Your task to perform on an android device: see tabs open on other devices in the chrome app Image 0: 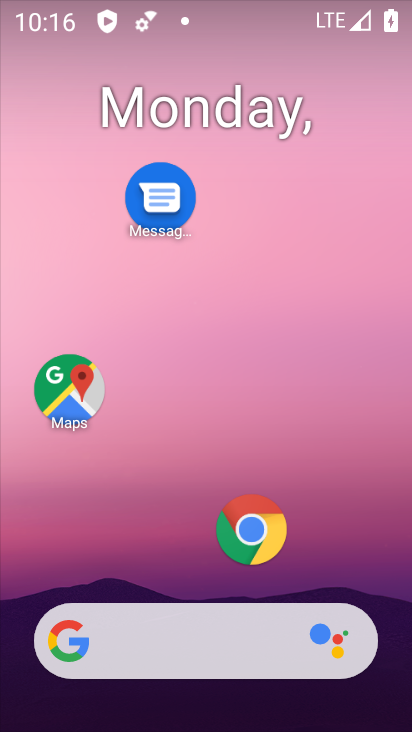
Step 0: drag from (154, 555) to (215, 125)
Your task to perform on an android device: see tabs open on other devices in the chrome app Image 1: 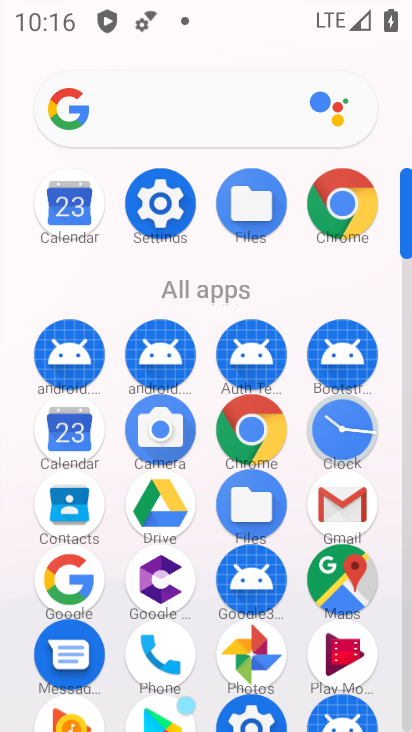
Step 1: click (267, 440)
Your task to perform on an android device: see tabs open on other devices in the chrome app Image 2: 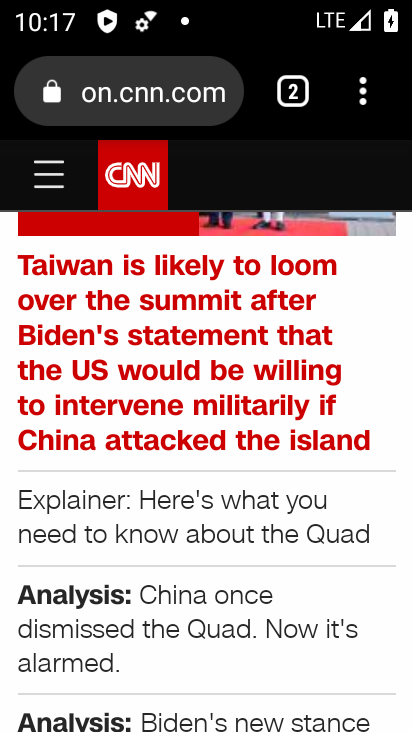
Step 2: click (367, 84)
Your task to perform on an android device: see tabs open on other devices in the chrome app Image 3: 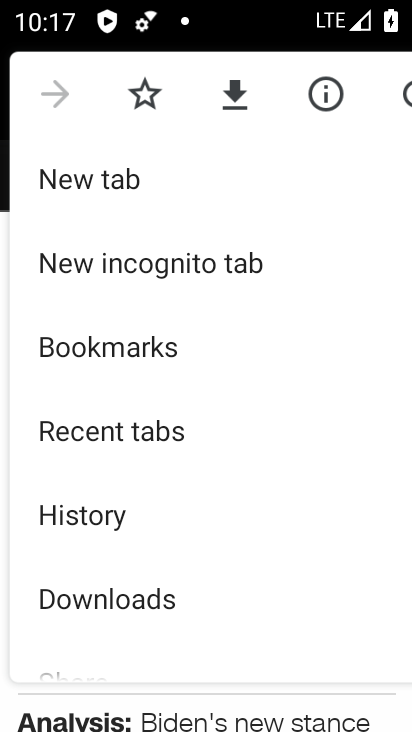
Step 3: click (158, 435)
Your task to perform on an android device: see tabs open on other devices in the chrome app Image 4: 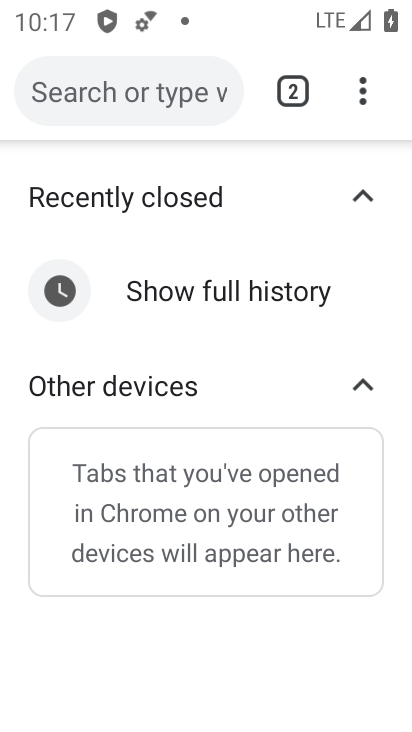
Step 4: click (259, 398)
Your task to perform on an android device: see tabs open on other devices in the chrome app Image 5: 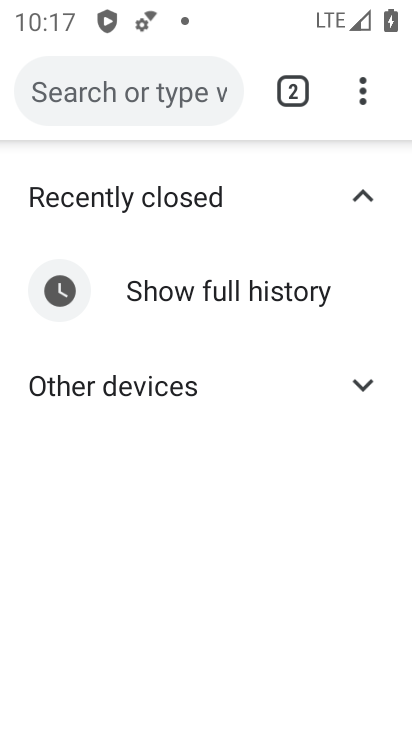
Step 5: click (328, 394)
Your task to perform on an android device: see tabs open on other devices in the chrome app Image 6: 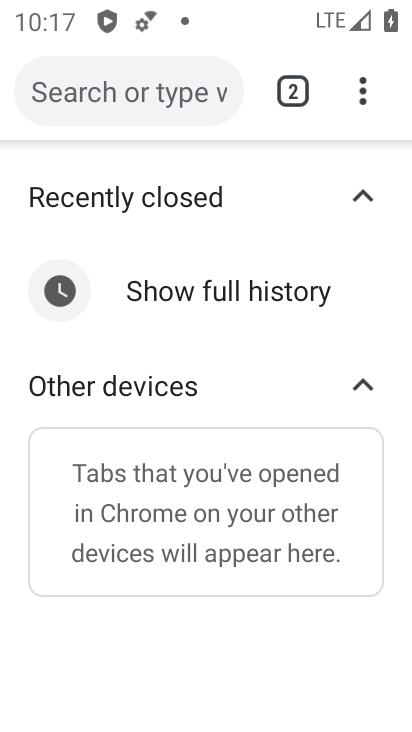
Step 6: click (204, 515)
Your task to perform on an android device: see tabs open on other devices in the chrome app Image 7: 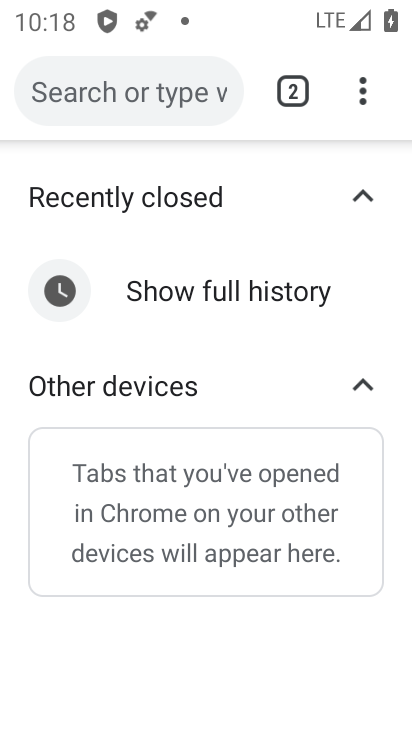
Step 7: task complete